Your task to perform on an android device: Go to Android settings Image 0: 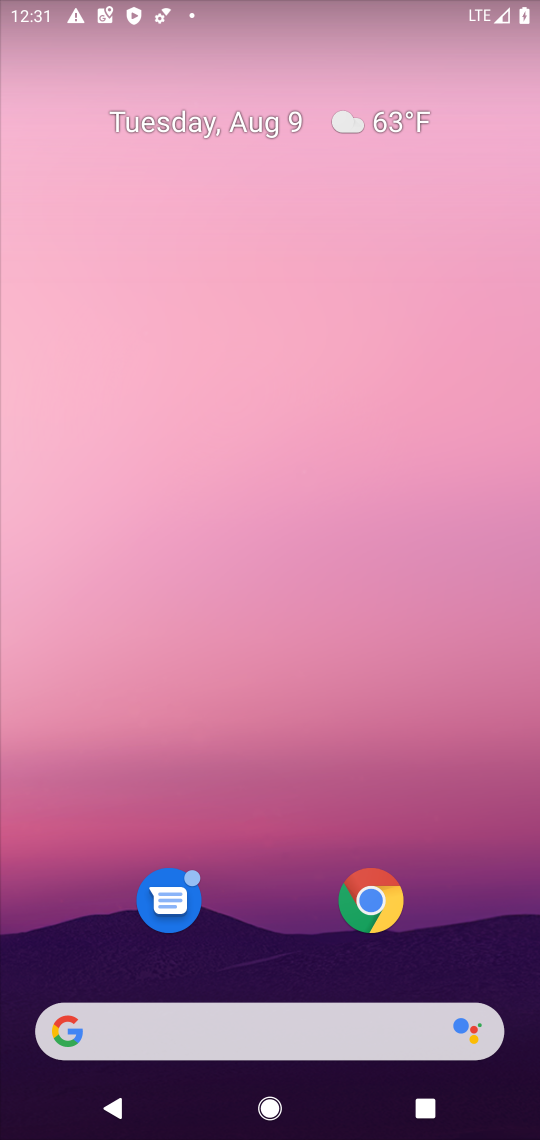
Step 0: press home button
Your task to perform on an android device: Go to Android settings Image 1: 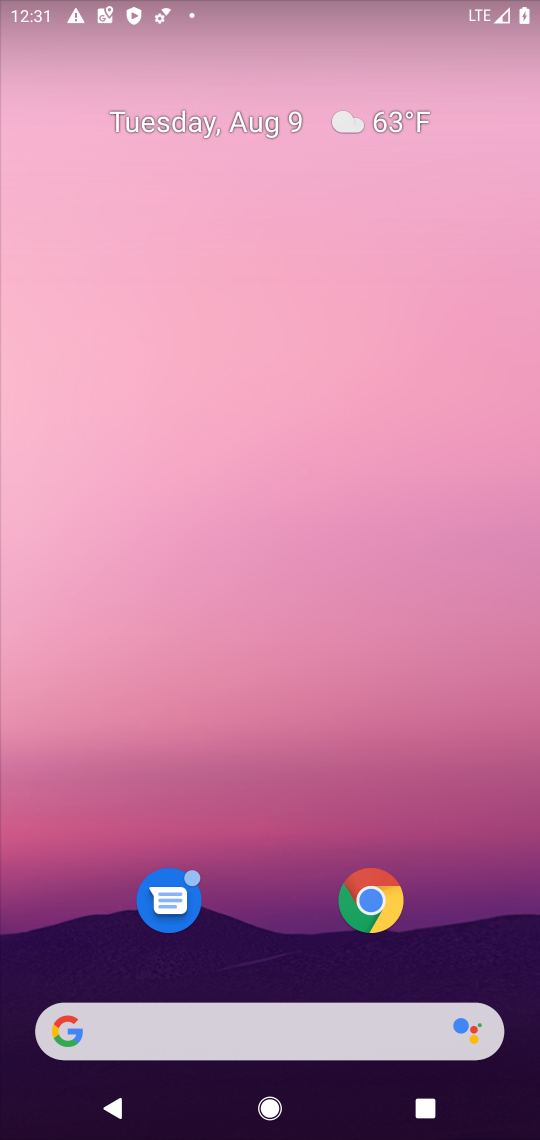
Step 1: drag from (461, 926) to (459, 202)
Your task to perform on an android device: Go to Android settings Image 2: 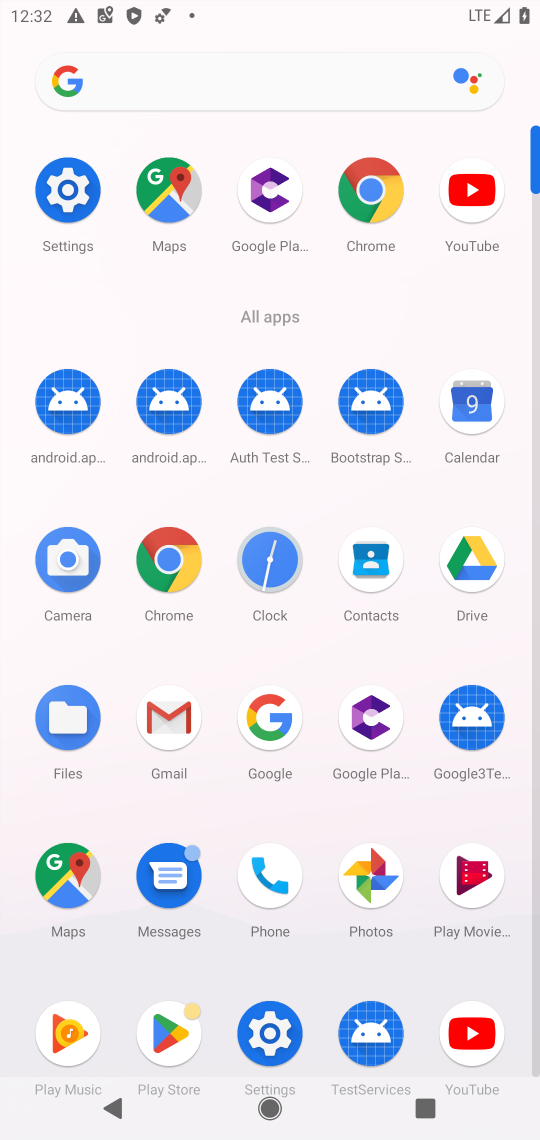
Step 2: click (72, 186)
Your task to perform on an android device: Go to Android settings Image 3: 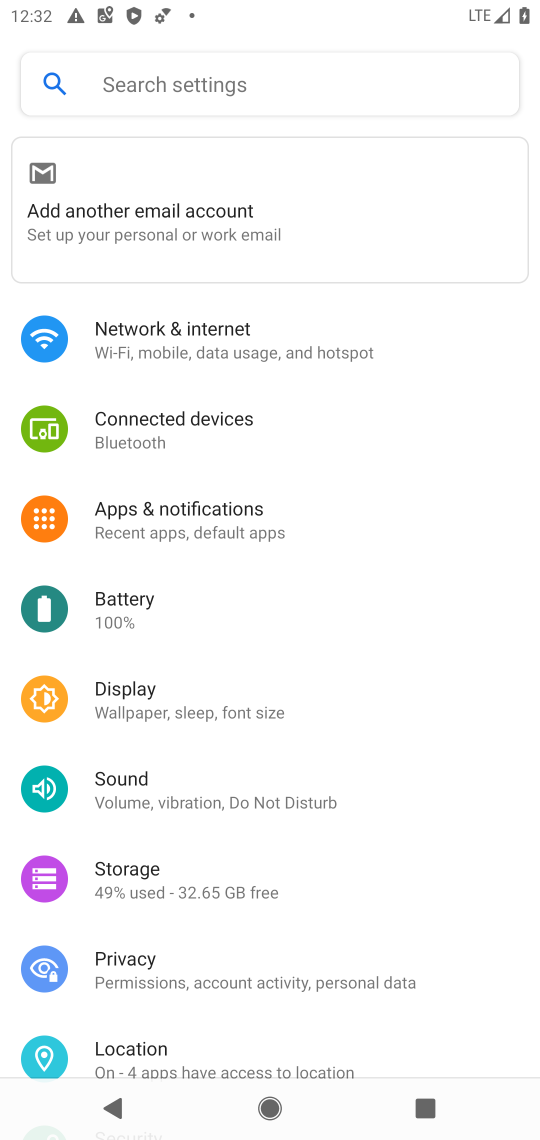
Step 3: drag from (383, 823) to (435, 435)
Your task to perform on an android device: Go to Android settings Image 4: 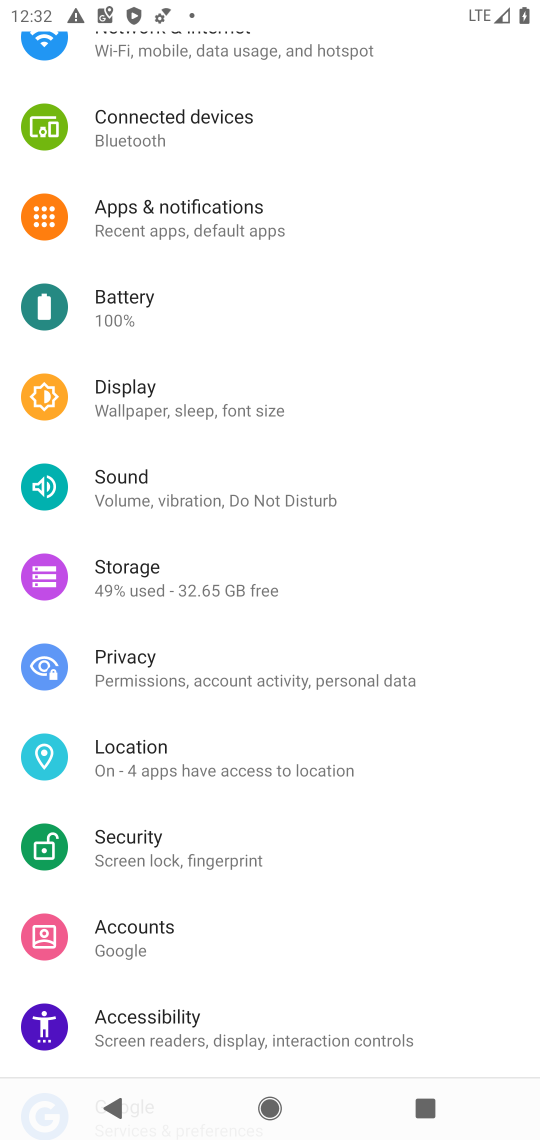
Step 4: drag from (398, 901) to (444, 506)
Your task to perform on an android device: Go to Android settings Image 5: 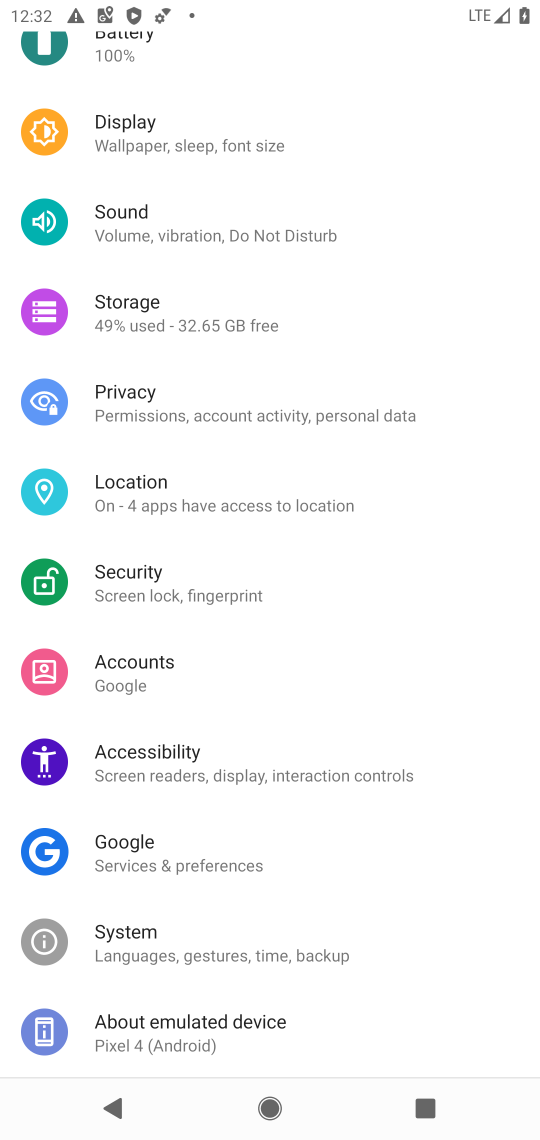
Step 5: drag from (415, 901) to (475, 537)
Your task to perform on an android device: Go to Android settings Image 6: 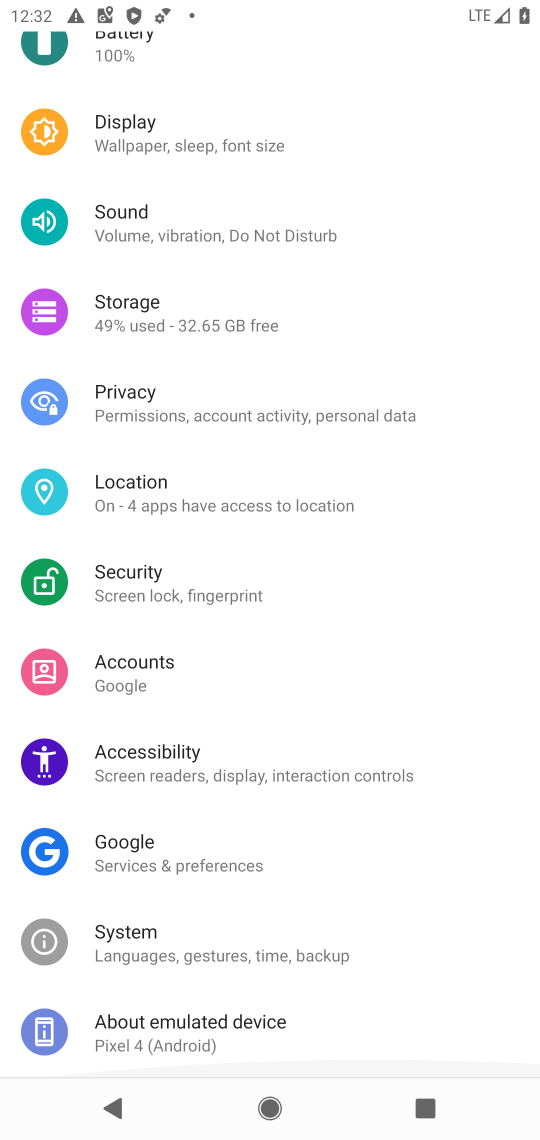
Step 6: click (316, 943)
Your task to perform on an android device: Go to Android settings Image 7: 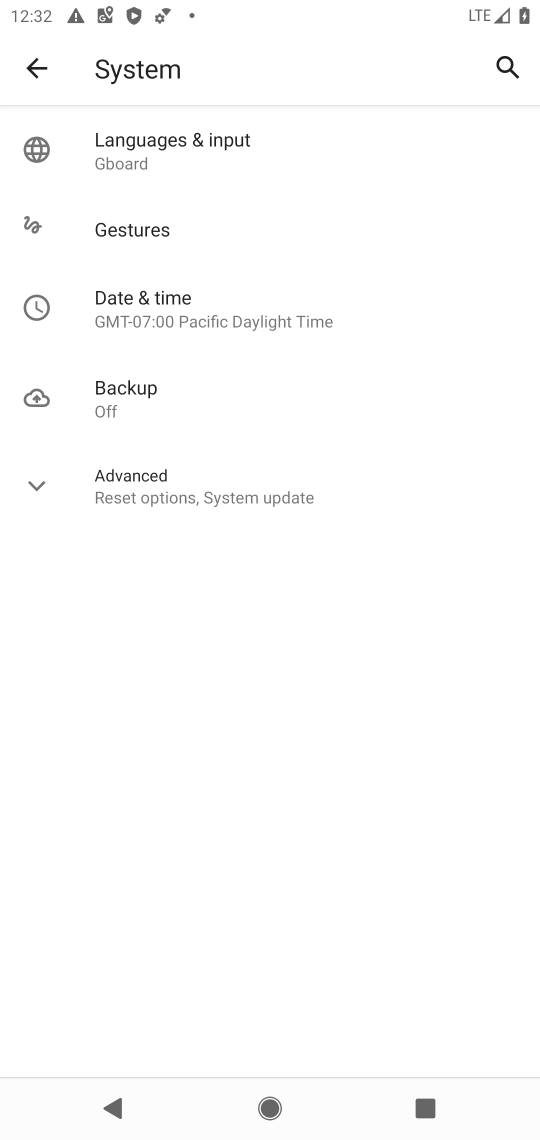
Step 7: click (203, 465)
Your task to perform on an android device: Go to Android settings Image 8: 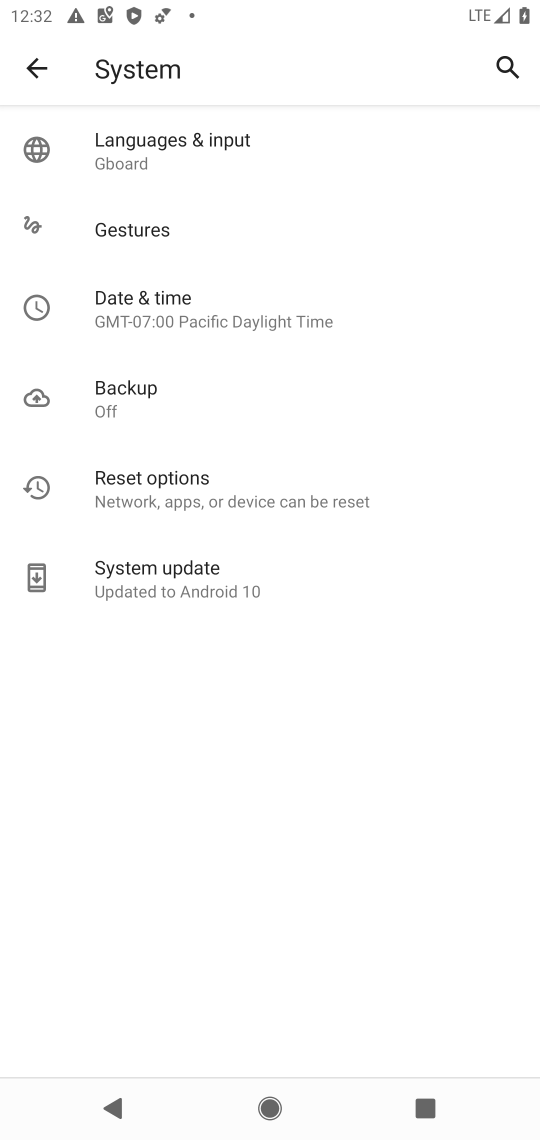
Step 8: task complete